Your task to perform on an android device: Show me popular videos on Youtube Image 0: 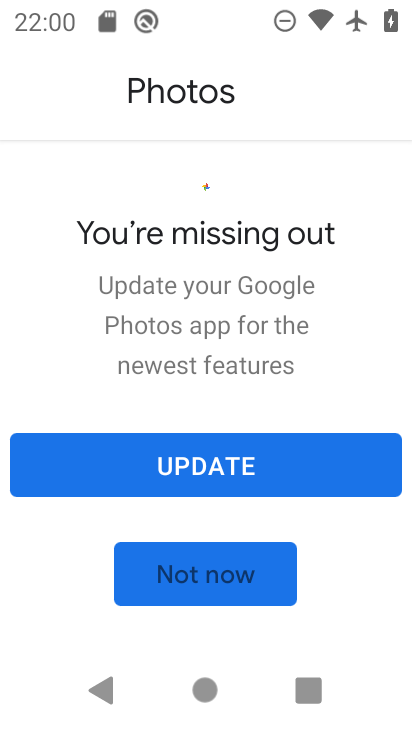
Step 0: click (231, 577)
Your task to perform on an android device: Show me popular videos on Youtube Image 1: 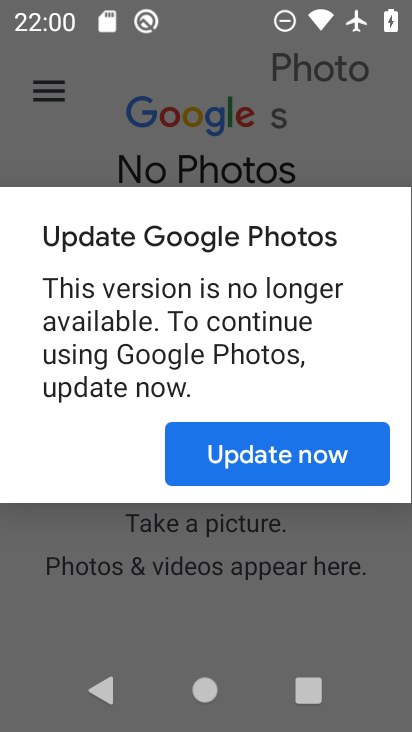
Step 1: press home button
Your task to perform on an android device: Show me popular videos on Youtube Image 2: 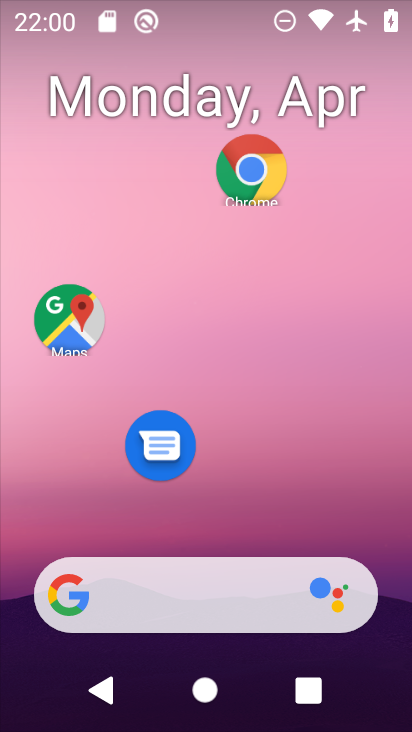
Step 2: drag from (248, 555) to (252, 273)
Your task to perform on an android device: Show me popular videos on Youtube Image 3: 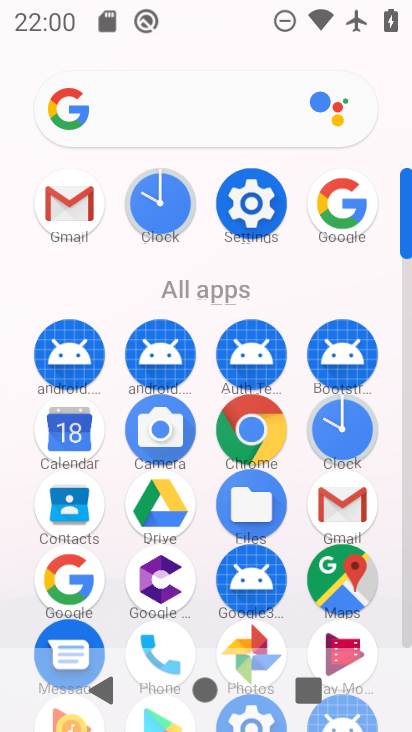
Step 3: drag from (301, 586) to (308, 316)
Your task to perform on an android device: Show me popular videos on Youtube Image 4: 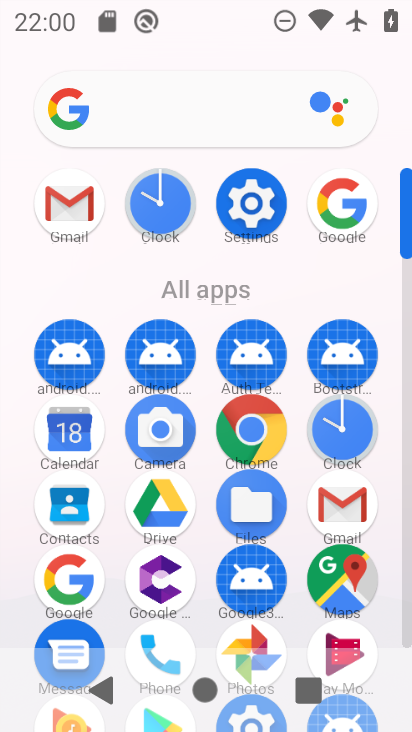
Step 4: drag from (205, 583) to (219, 253)
Your task to perform on an android device: Show me popular videos on Youtube Image 5: 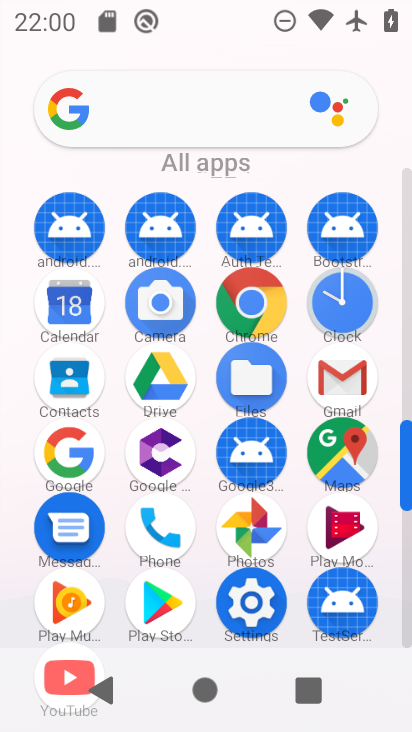
Step 5: drag from (198, 533) to (227, 277)
Your task to perform on an android device: Show me popular videos on Youtube Image 6: 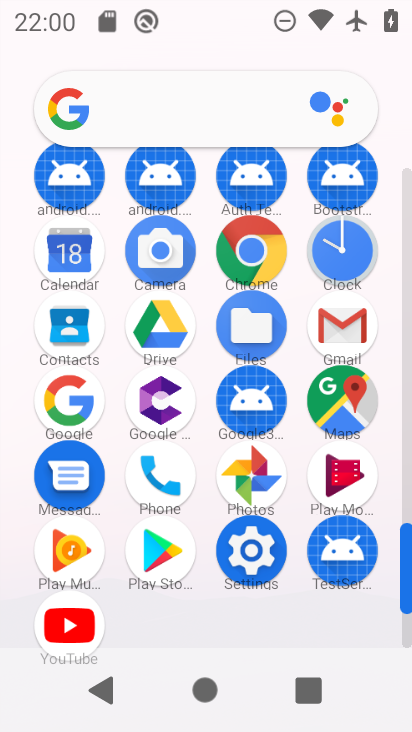
Step 6: click (77, 633)
Your task to perform on an android device: Show me popular videos on Youtube Image 7: 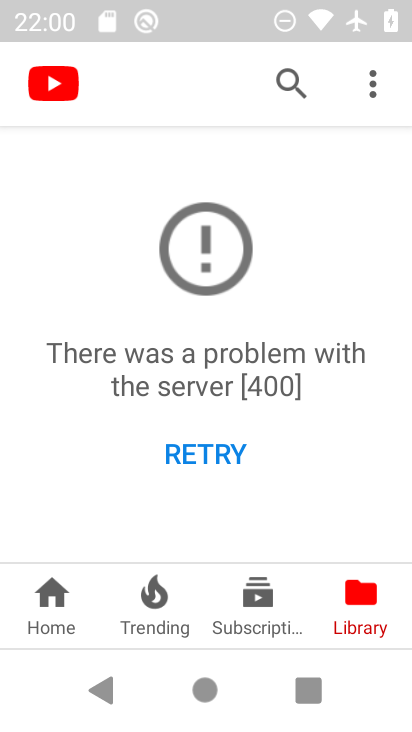
Step 7: click (139, 598)
Your task to perform on an android device: Show me popular videos on Youtube Image 8: 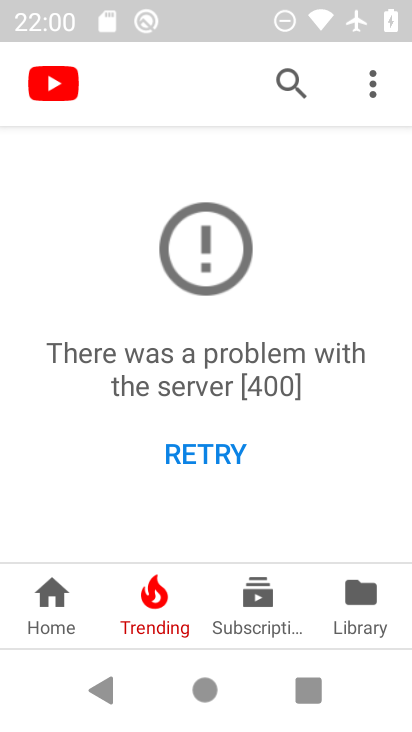
Step 8: click (148, 462)
Your task to perform on an android device: Show me popular videos on Youtube Image 9: 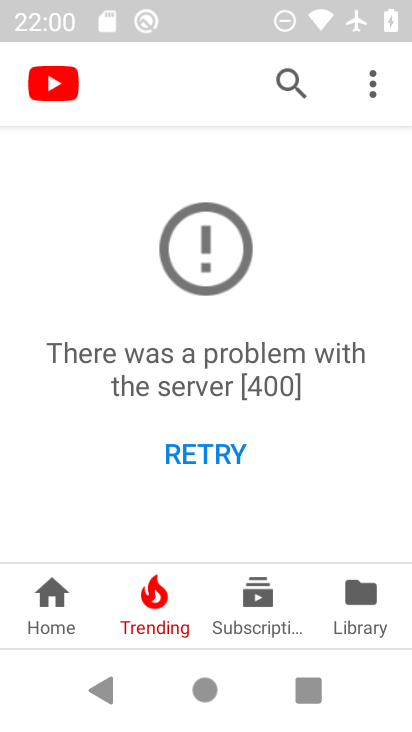
Step 9: task complete